Your task to perform on an android device: Open the web browser Image 0: 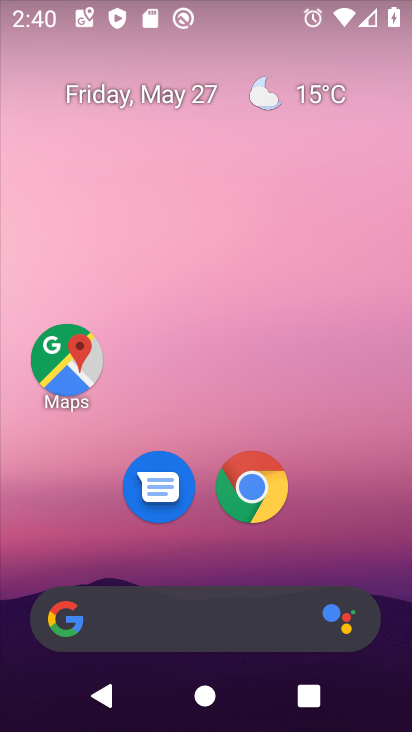
Step 0: click (248, 617)
Your task to perform on an android device: Open the web browser Image 1: 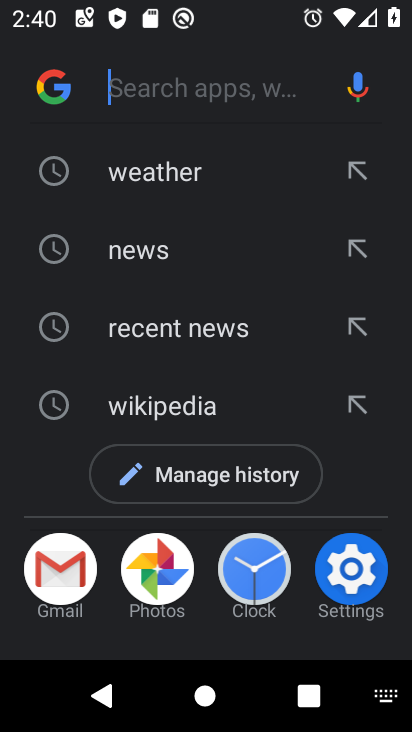
Step 1: task complete